Your task to perform on an android device: snooze an email in the gmail app Image 0: 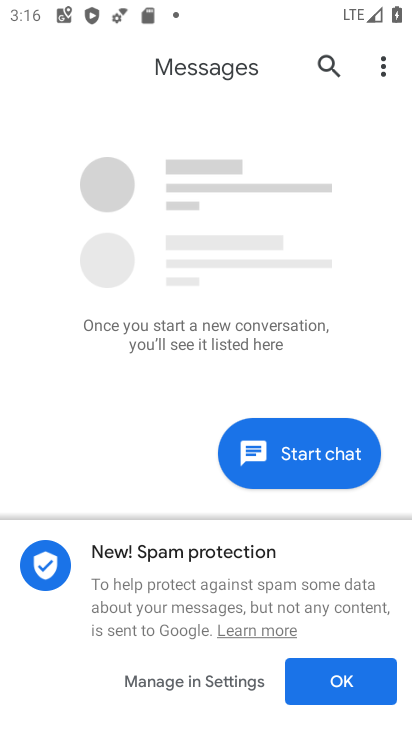
Step 0: press home button
Your task to perform on an android device: snooze an email in the gmail app Image 1: 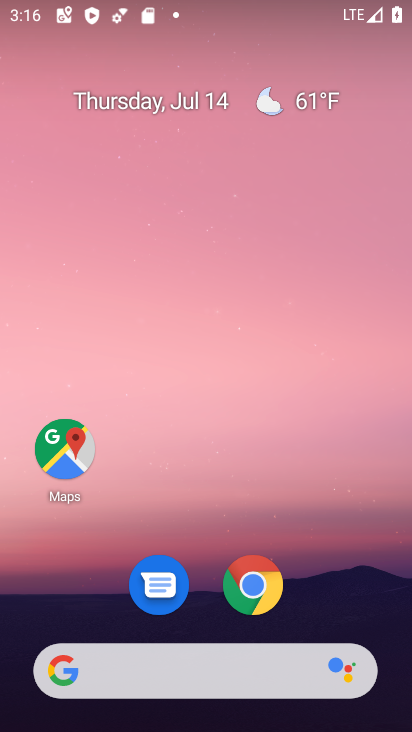
Step 1: drag from (358, 536) to (312, 139)
Your task to perform on an android device: snooze an email in the gmail app Image 2: 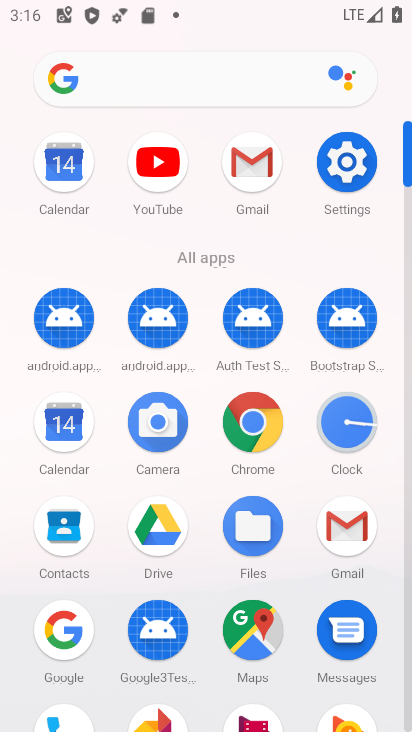
Step 2: click (252, 181)
Your task to perform on an android device: snooze an email in the gmail app Image 3: 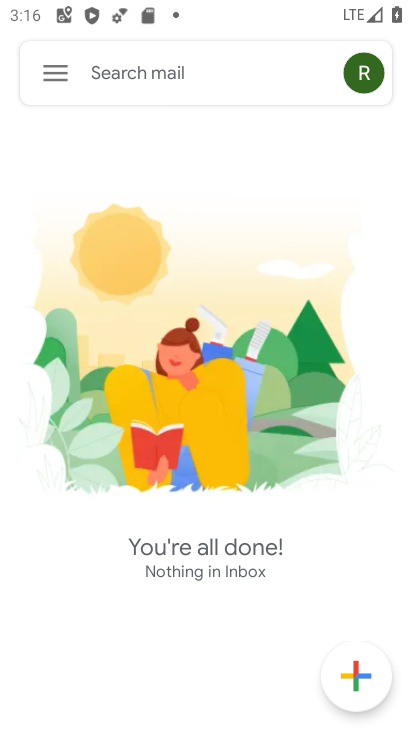
Step 3: click (54, 68)
Your task to perform on an android device: snooze an email in the gmail app Image 4: 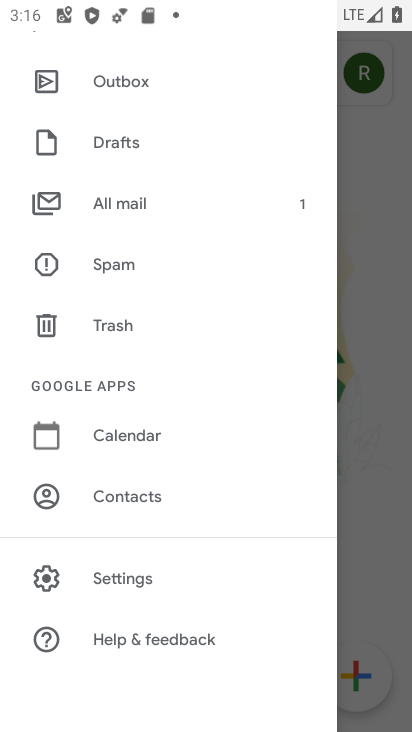
Step 4: click (125, 199)
Your task to perform on an android device: snooze an email in the gmail app Image 5: 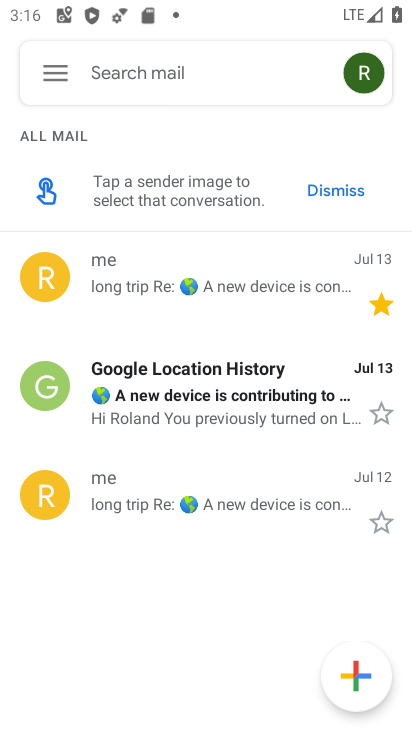
Step 5: click (223, 495)
Your task to perform on an android device: snooze an email in the gmail app Image 6: 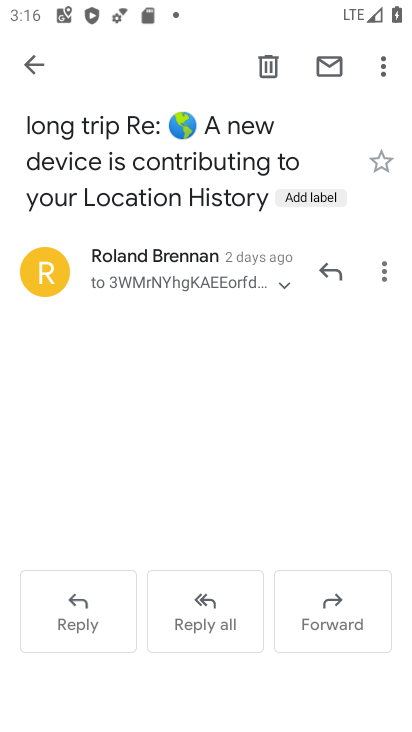
Step 6: click (383, 70)
Your task to perform on an android device: snooze an email in the gmail app Image 7: 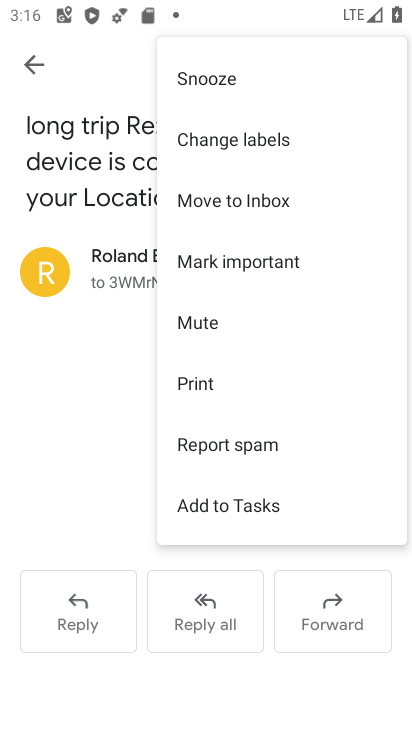
Step 7: click (231, 78)
Your task to perform on an android device: snooze an email in the gmail app Image 8: 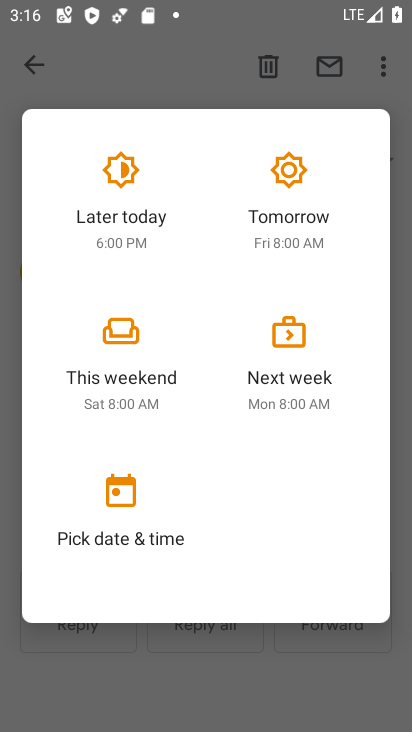
Step 8: click (280, 361)
Your task to perform on an android device: snooze an email in the gmail app Image 9: 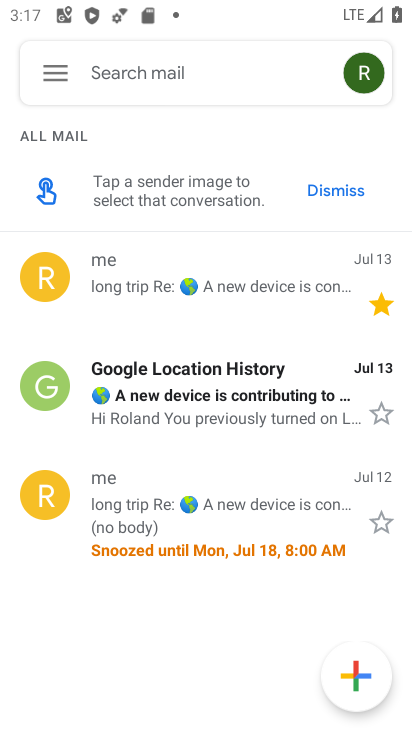
Step 9: task complete